Your task to perform on an android device: turn on bluetooth scan Image 0: 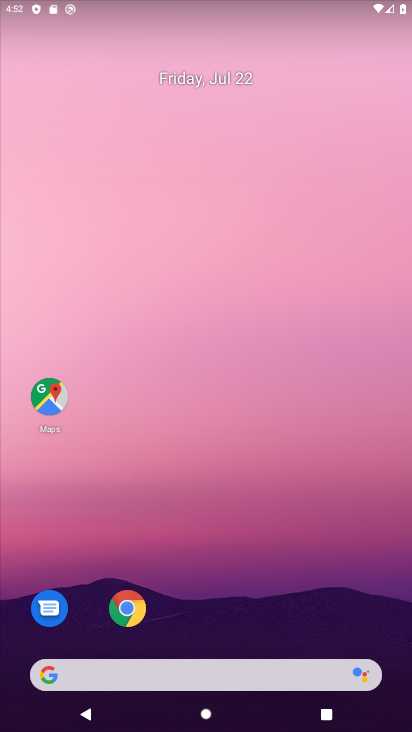
Step 0: drag from (217, 643) to (222, 202)
Your task to perform on an android device: turn on bluetooth scan Image 1: 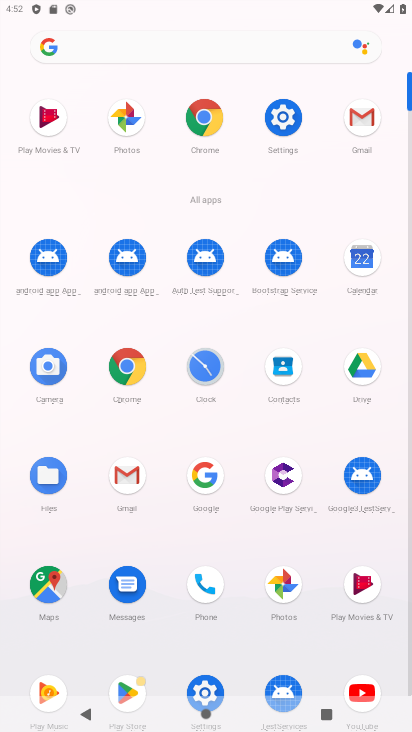
Step 1: click (288, 104)
Your task to perform on an android device: turn on bluetooth scan Image 2: 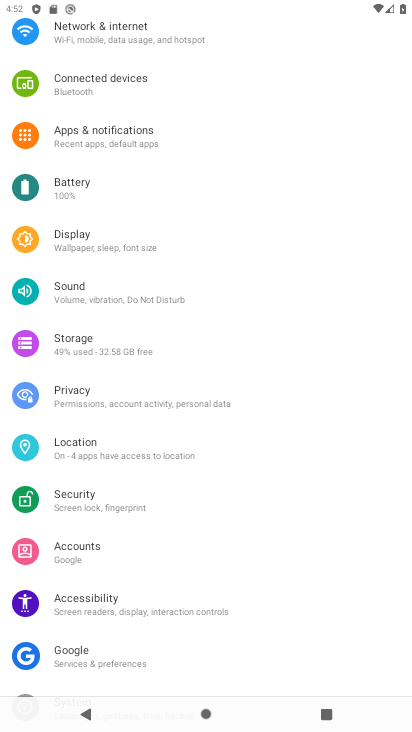
Step 2: click (93, 452)
Your task to perform on an android device: turn on bluetooth scan Image 3: 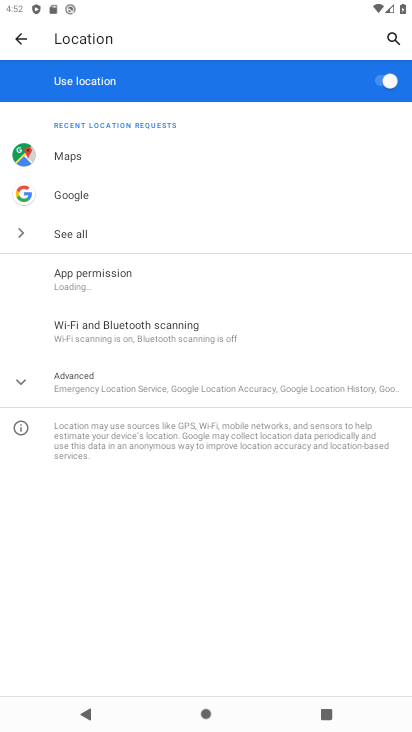
Step 3: click (143, 333)
Your task to perform on an android device: turn on bluetooth scan Image 4: 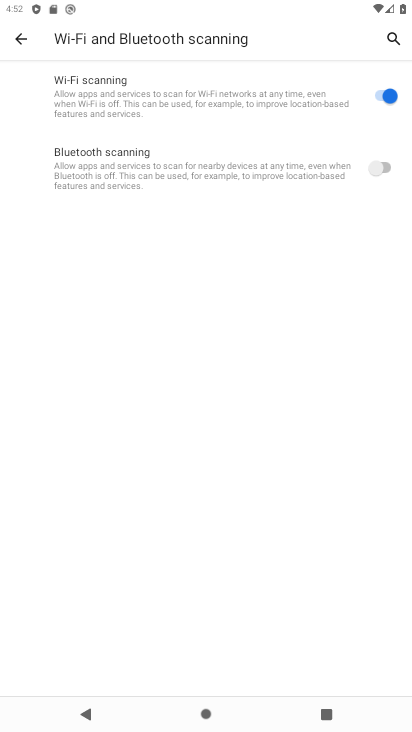
Step 4: click (384, 171)
Your task to perform on an android device: turn on bluetooth scan Image 5: 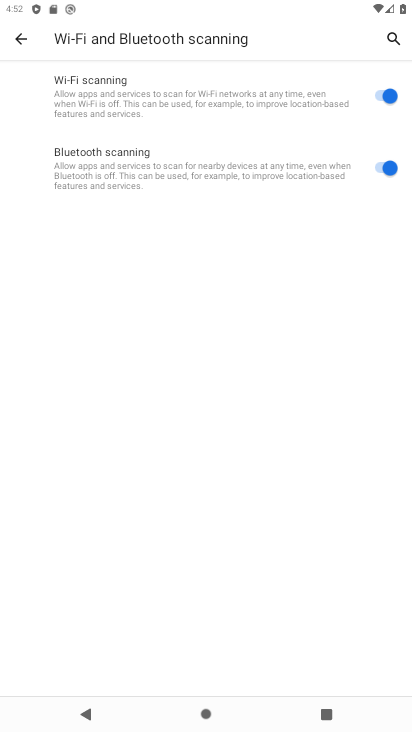
Step 5: task complete